Your task to perform on an android device: turn on wifi Image 0: 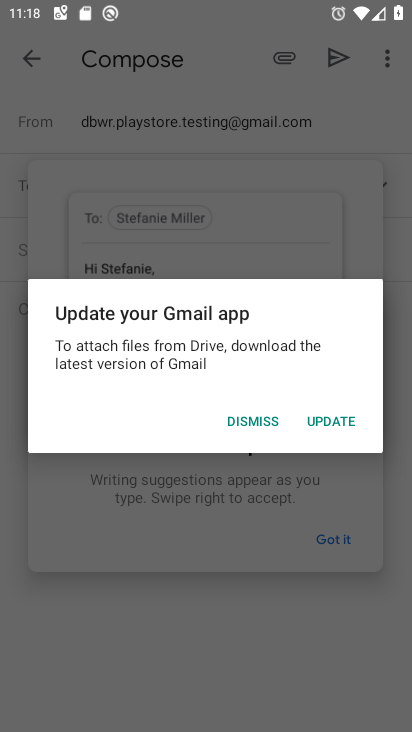
Step 0: press home button
Your task to perform on an android device: turn on wifi Image 1: 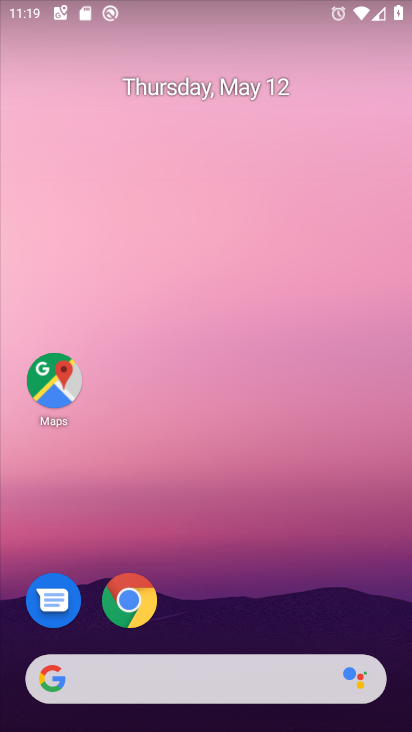
Step 1: drag from (222, 507) to (269, 64)
Your task to perform on an android device: turn on wifi Image 2: 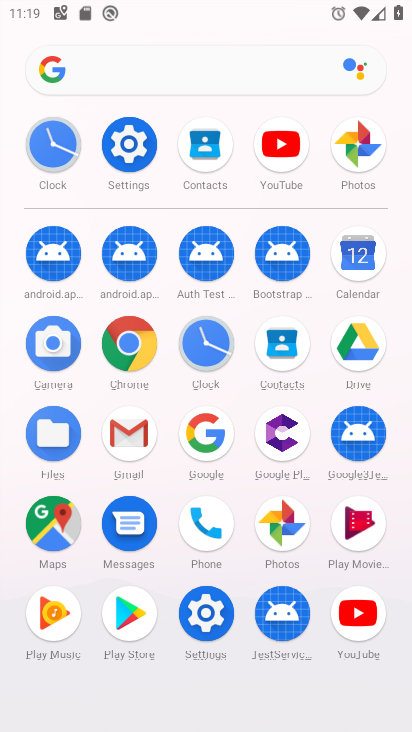
Step 2: click (125, 150)
Your task to perform on an android device: turn on wifi Image 3: 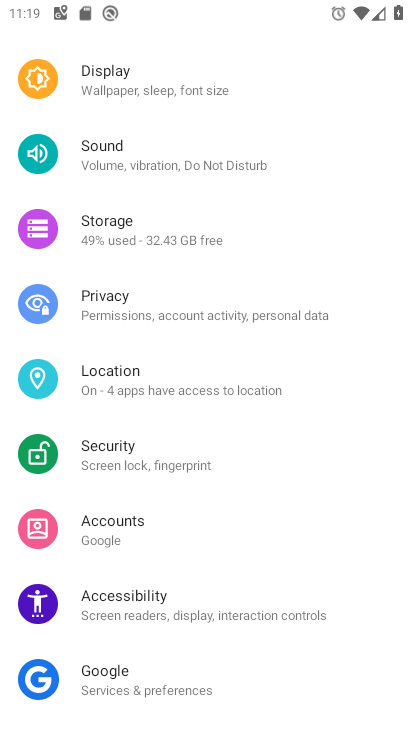
Step 3: drag from (170, 628) to (161, 721)
Your task to perform on an android device: turn on wifi Image 4: 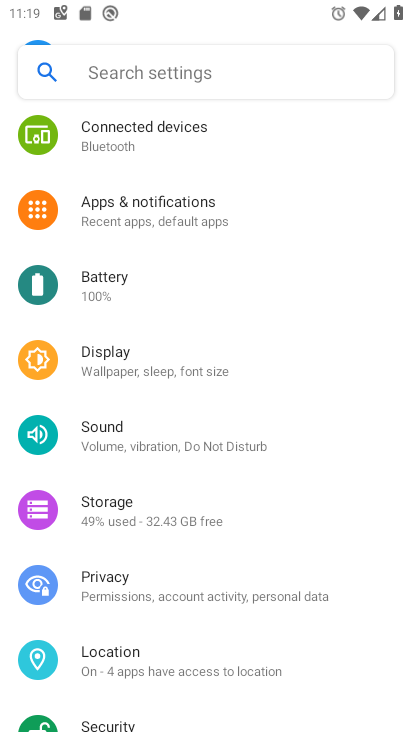
Step 4: drag from (124, 226) to (96, 526)
Your task to perform on an android device: turn on wifi Image 5: 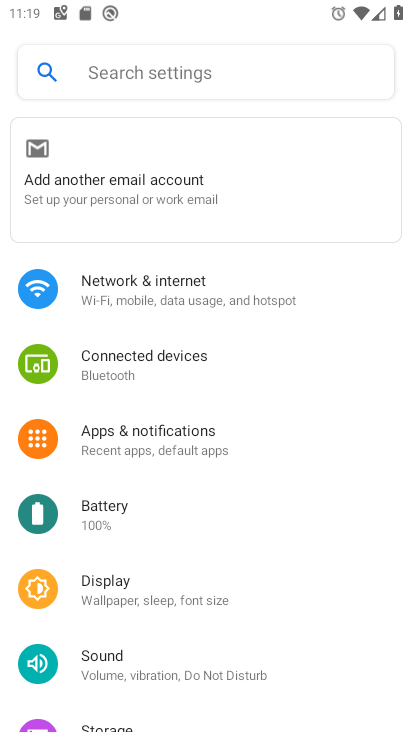
Step 5: click (146, 272)
Your task to perform on an android device: turn on wifi Image 6: 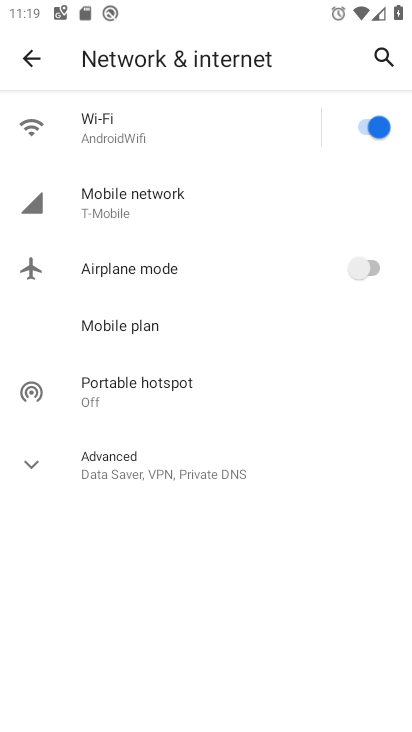
Step 6: task complete